Your task to perform on an android device: set an alarm Image 0: 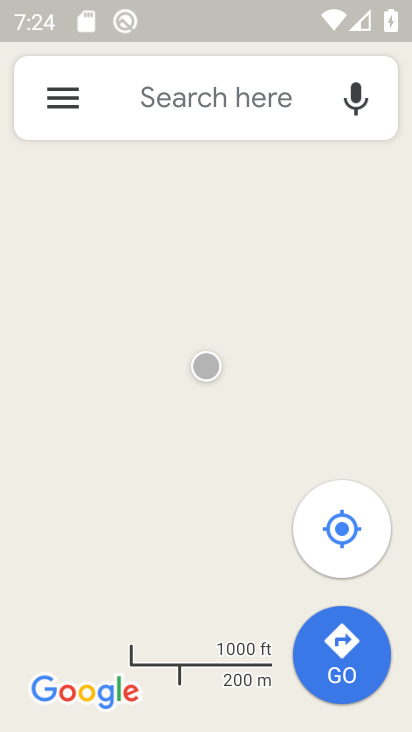
Step 0: press home button
Your task to perform on an android device: set an alarm Image 1: 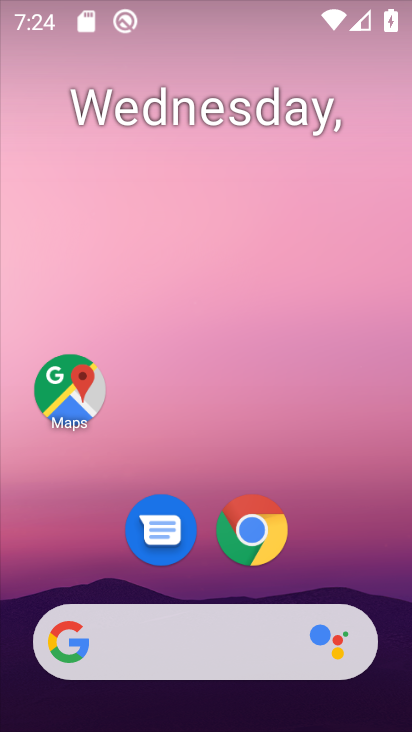
Step 1: drag from (383, 652) to (330, 107)
Your task to perform on an android device: set an alarm Image 2: 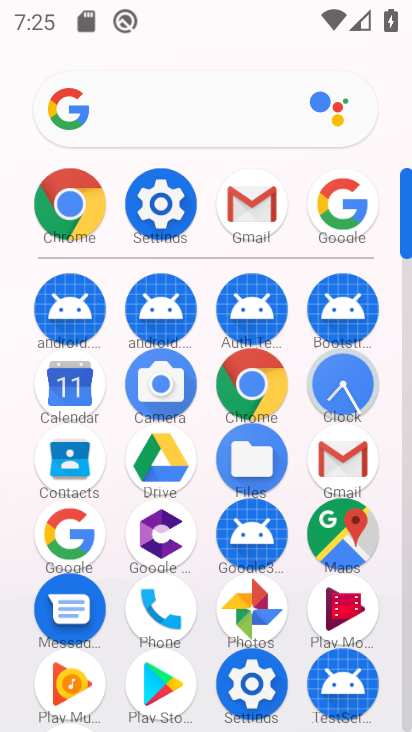
Step 2: click (331, 400)
Your task to perform on an android device: set an alarm Image 3: 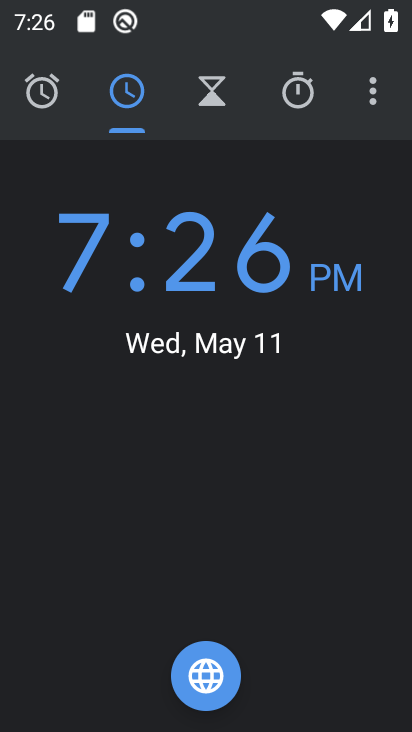
Step 3: click (49, 98)
Your task to perform on an android device: set an alarm Image 4: 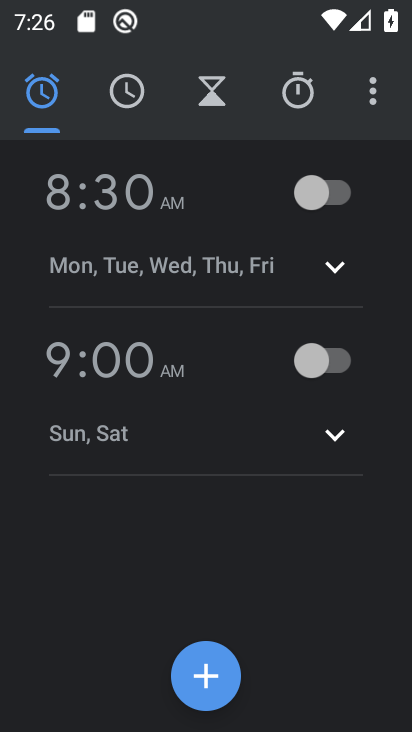
Step 4: task complete